Your task to perform on an android device: Open settings Image 0: 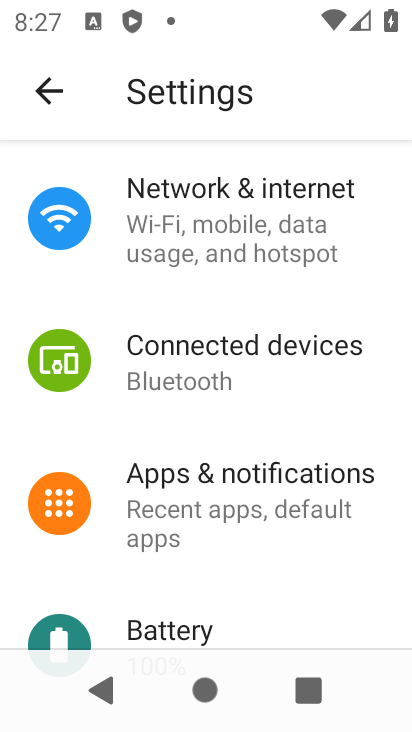
Step 0: drag from (237, 537) to (271, 218)
Your task to perform on an android device: Open settings Image 1: 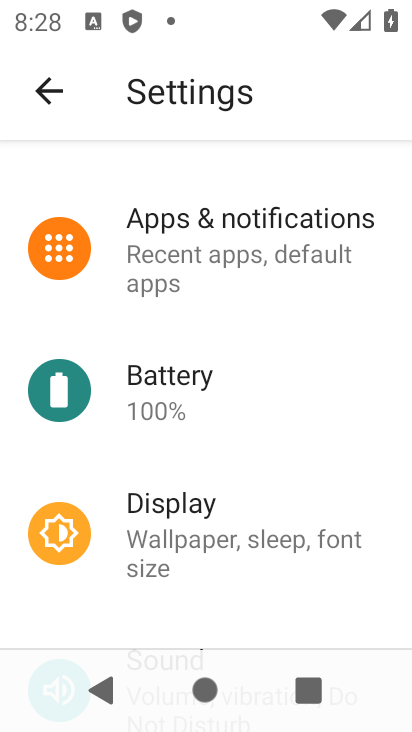
Step 1: task complete